Your task to perform on an android device: Go to Wikipedia Image 0: 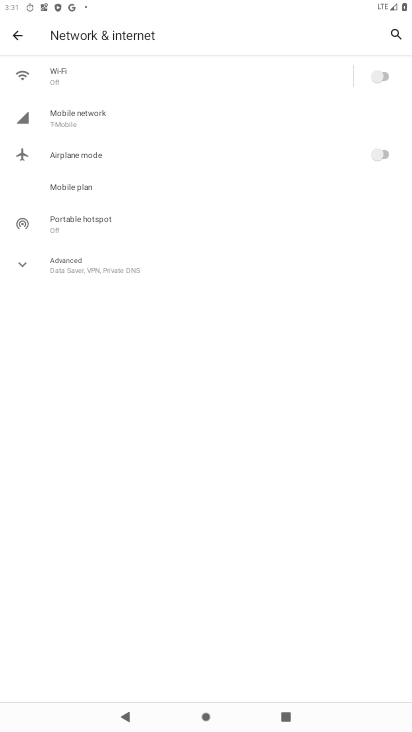
Step 0: press home button
Your task to perform on an android device: Go to Wikipedia Image 1: 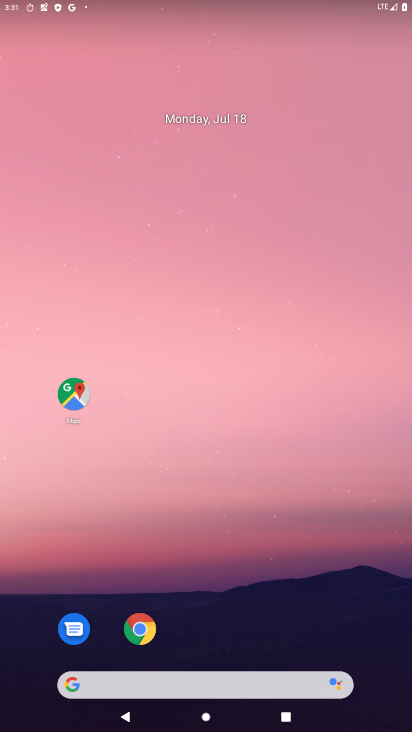
Step 1: drag from (205, 667) to (237, 24)
Your task to perform on an android device: Go to Wikipedia Image 2: 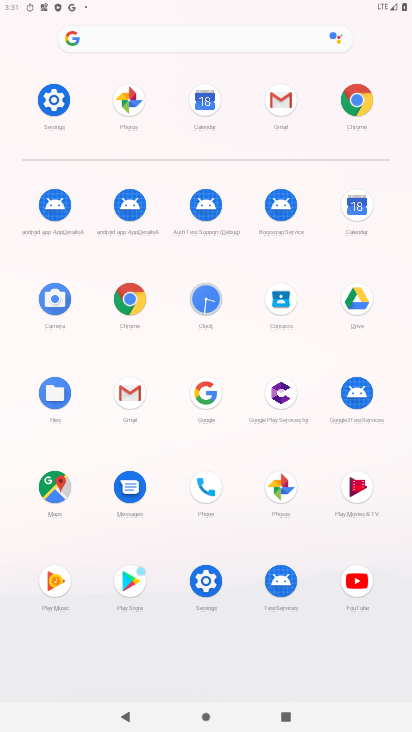
Step 2: click (127, 305)
Your task to perform on an android device: Go to Wikipedia Image 3: 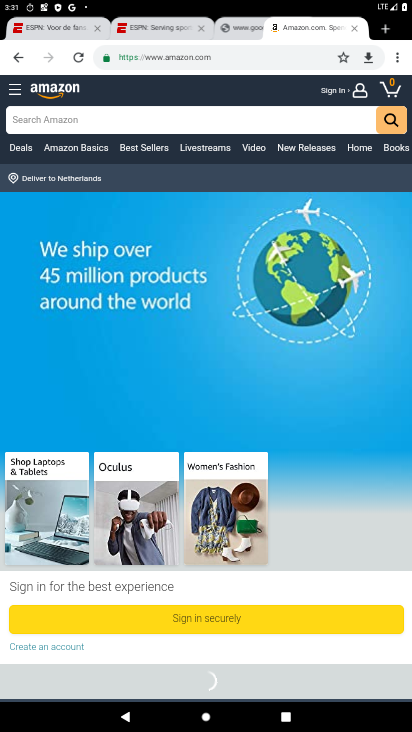
Step 3: click (379, 25)
Your task to perform on an android device: Go to Wikipedia Image 4: 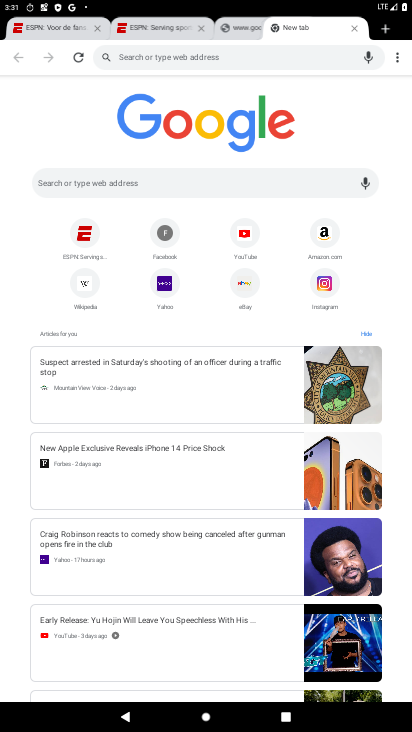
Step 4: click (94, 280)
Your task to perform on an android device: Go to Wikipedia Image 5: 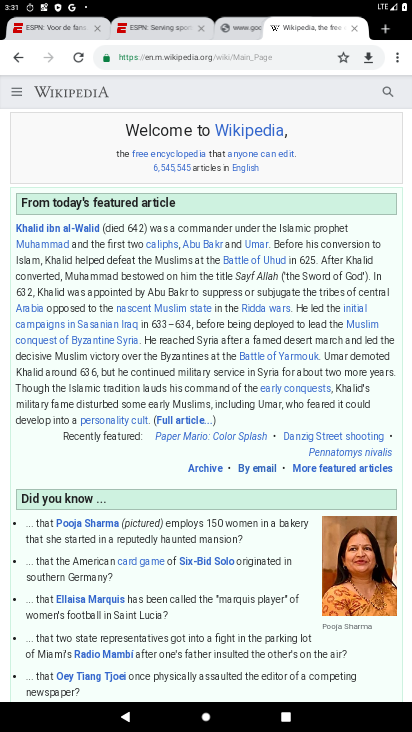
Step 5: task complete